Your task to perform on an android device: uninstall "Google Duo" Image 0: 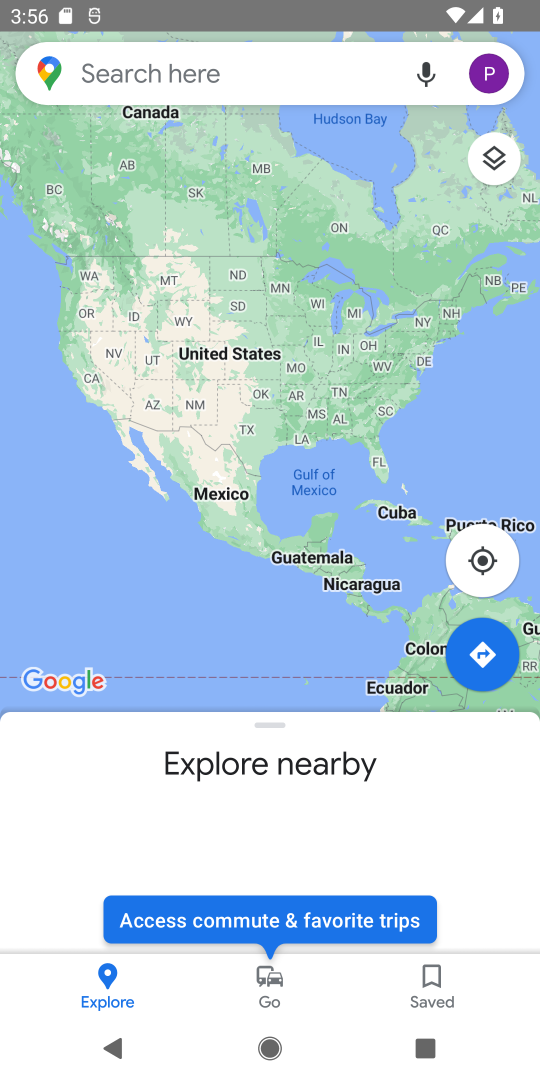
Step 0: press home button
Your task to perform on an android device: uninstall "Google Duo" Image 1: 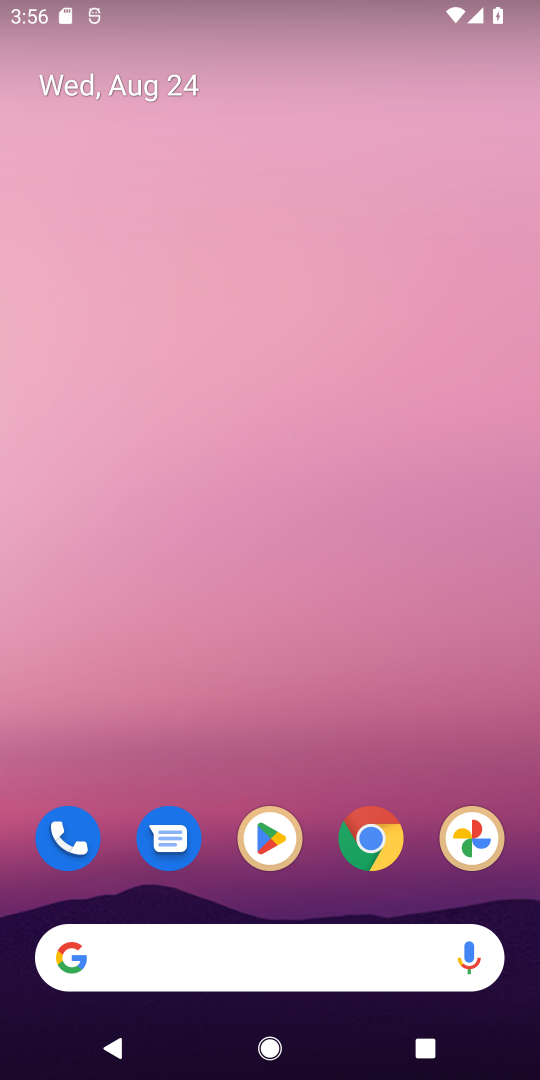
Step 1: click (265, 828)
Your task to perform on an android device: uninstall "Google Duo" Image 2: 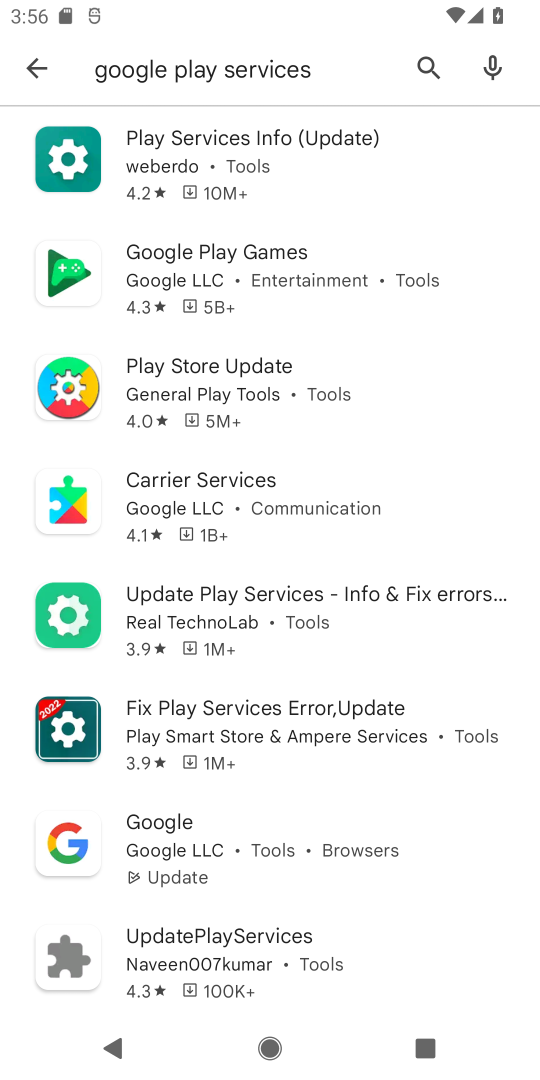
Step 2: click (424, 60)
Your task to perform on an android device: uninstall "Google Duo" Image 3: 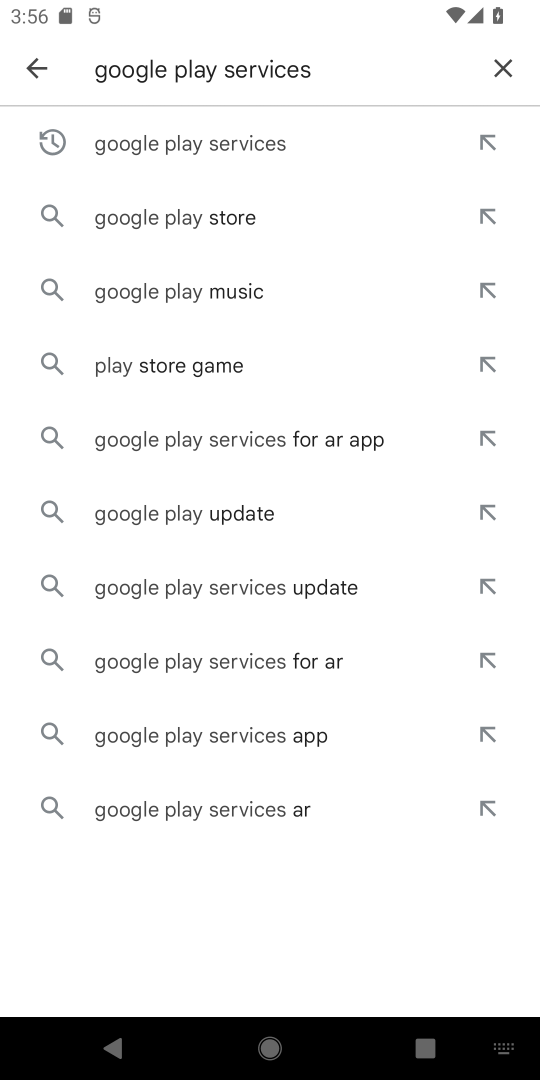
Step 3: click (498, 72)
Your task to perform on an android device: uninstall "Google Duo" Image 4: 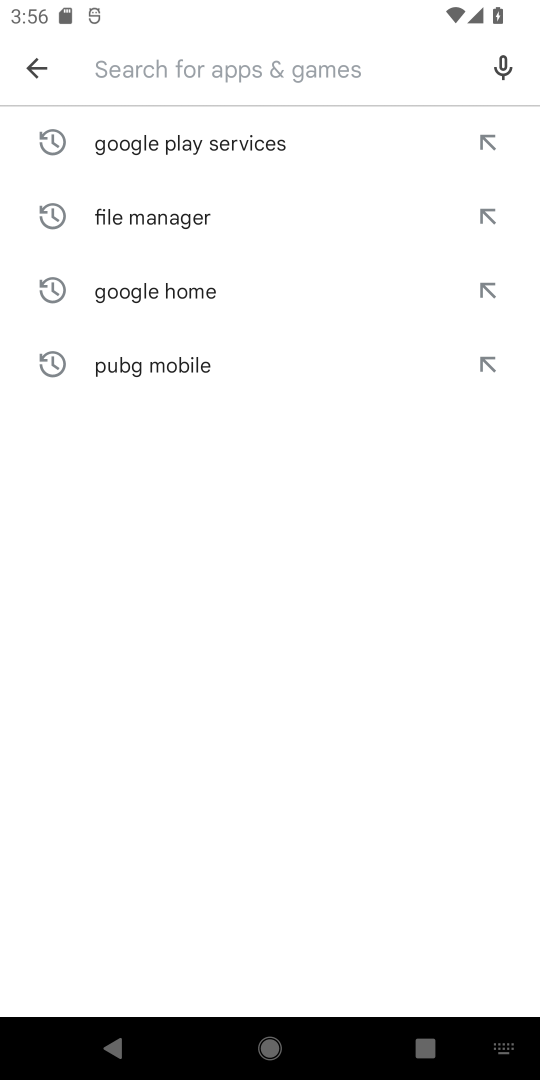
Step 4: type "Google Duo"
Your task to perform on an android device: uninstall "Google Duo" Image 5: 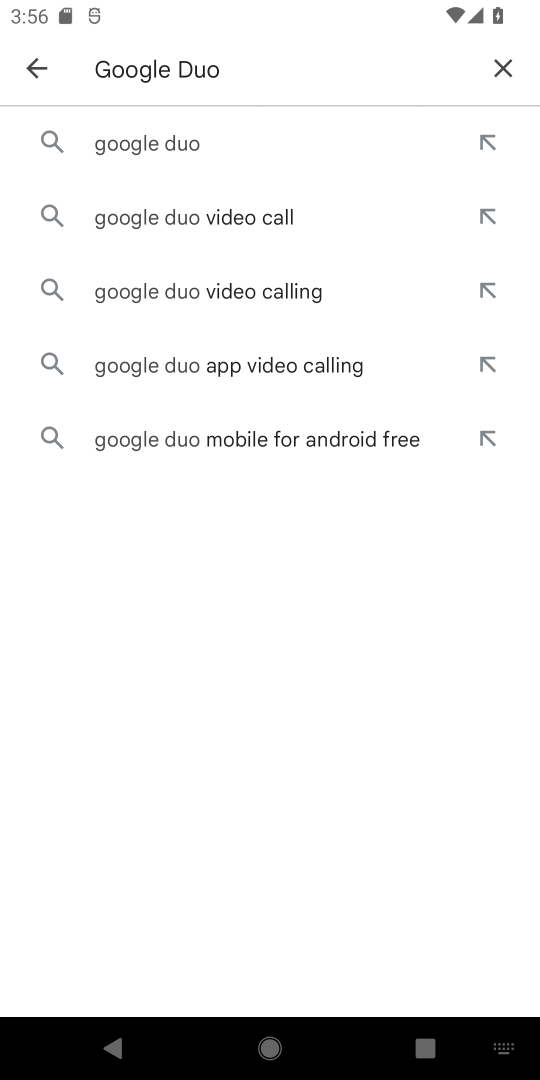
Step 5: click (211, 142)
Your task to perform on an android device: uninstall "Google Duo" Image 6: 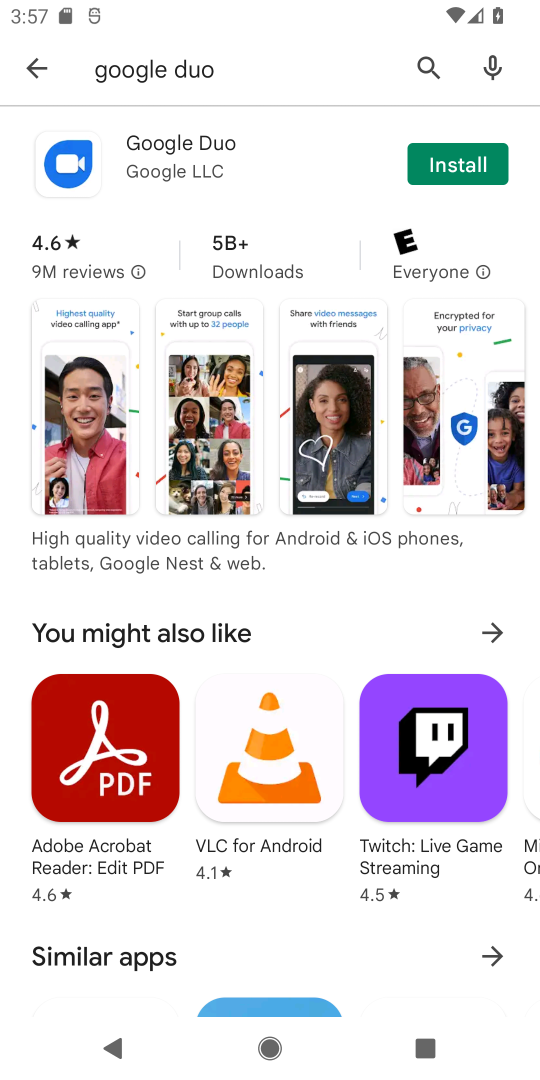
Step 6: task complete